Your task to perform on an android device: Open wifi settings Image 0: 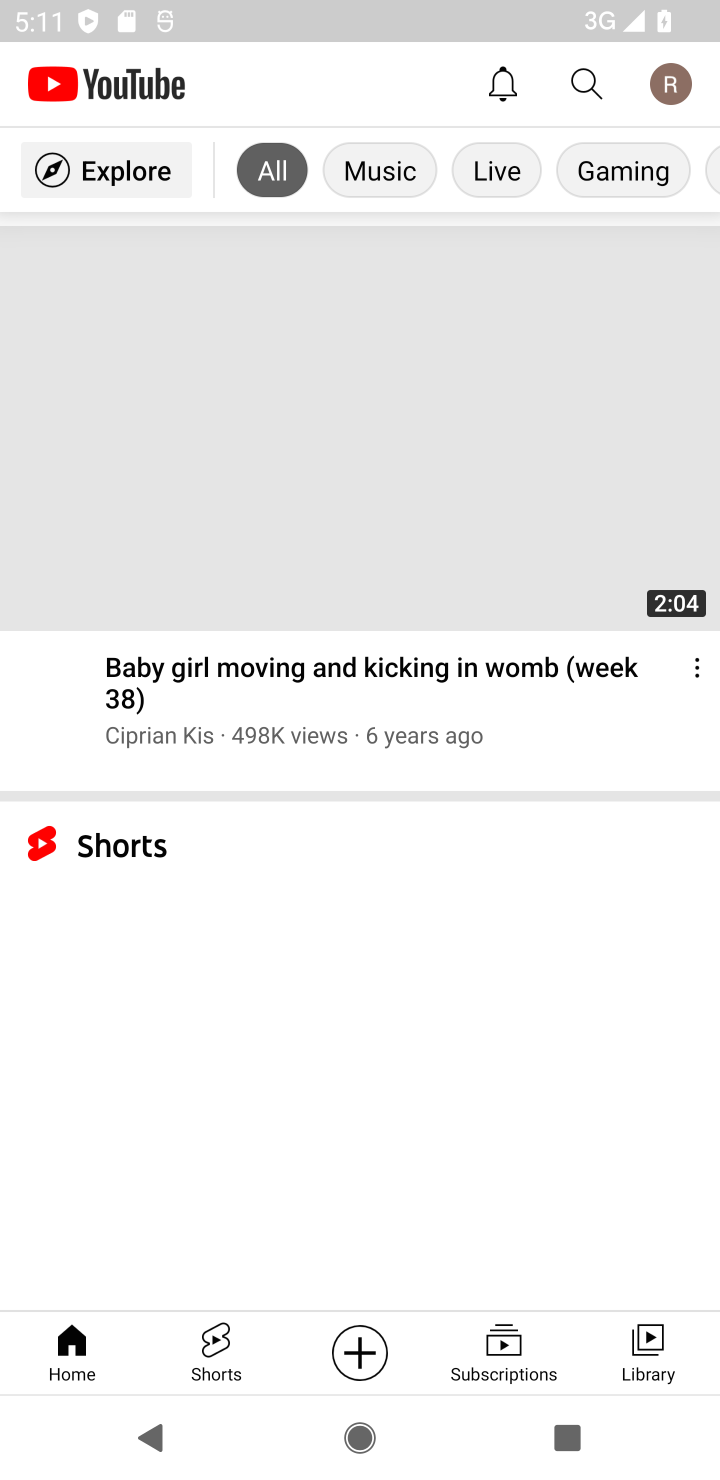
Step 0: press home button
Your task to perform on an android device: Open wifi settings Image 1: 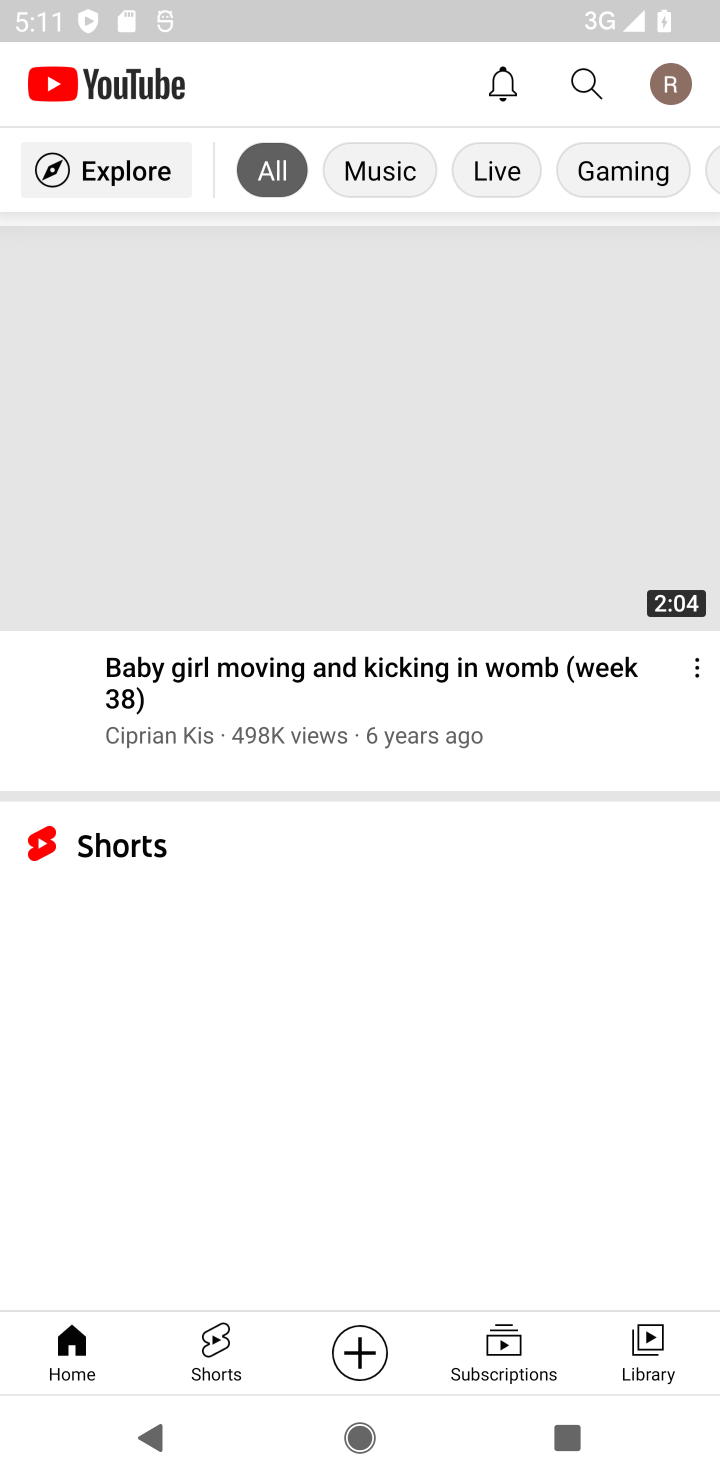
Step 1: press home button
Your task to perform on an android device: Open wifi settings Image 2: 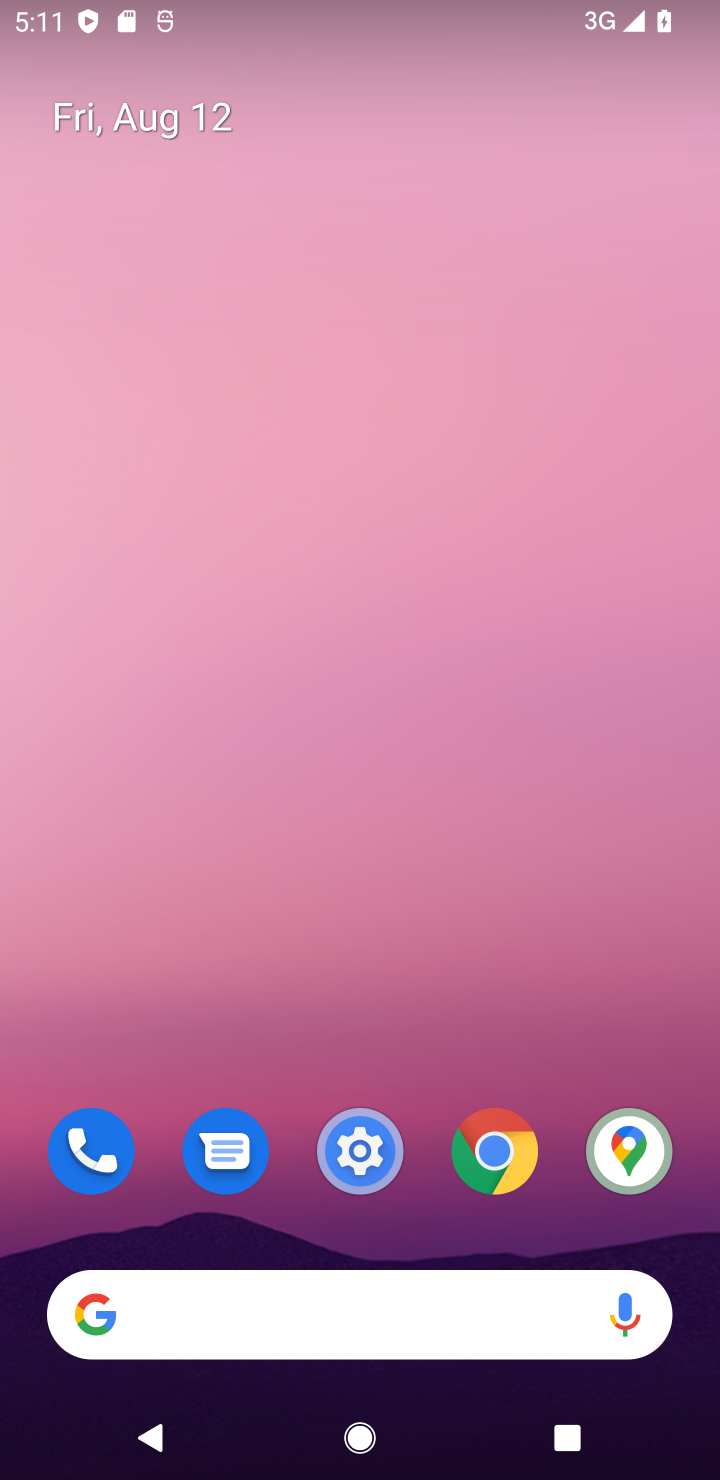
Step 2: drag from (413, 1062) to (466, 61)
Your task to perform on an android device: Open wifi settings Image 3: 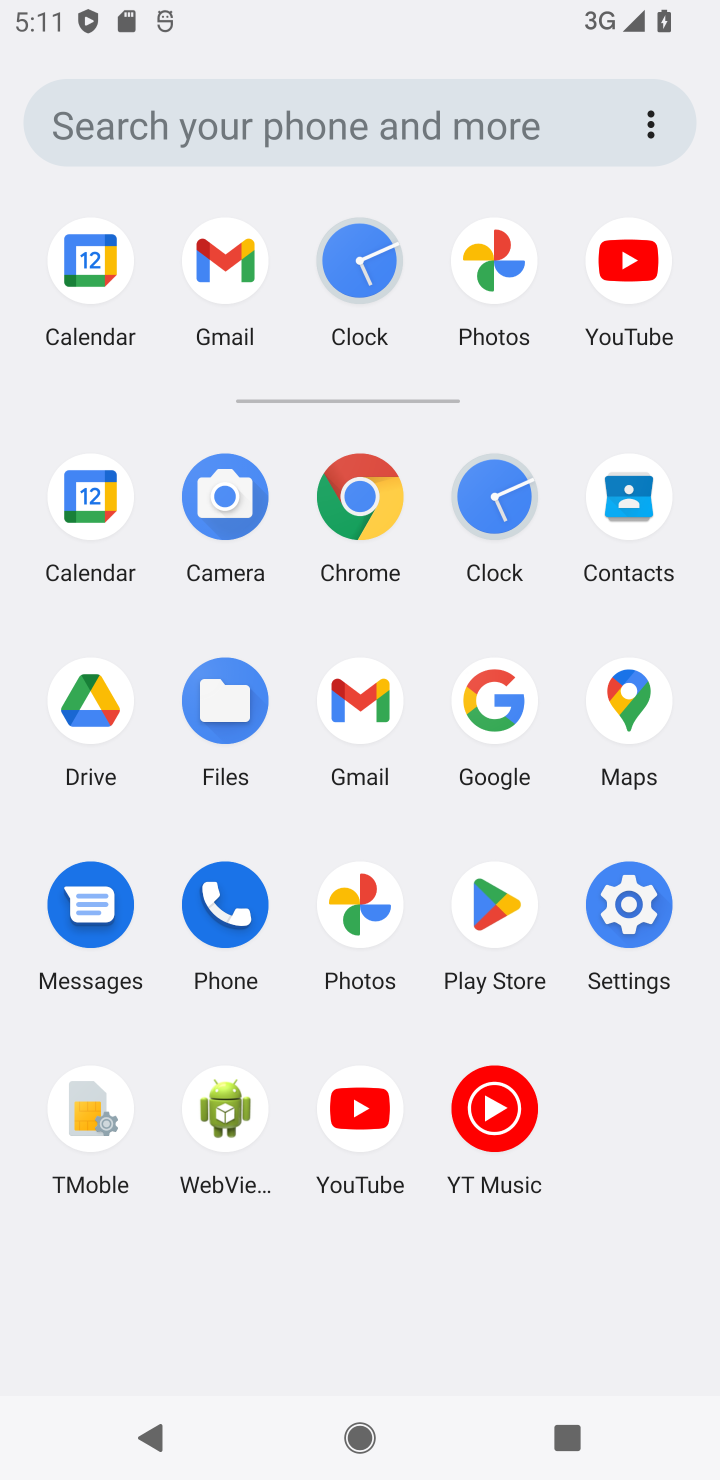
Step 3: click (635, 897)
Your task to perform on an android device: Open wifi settings Image 4: 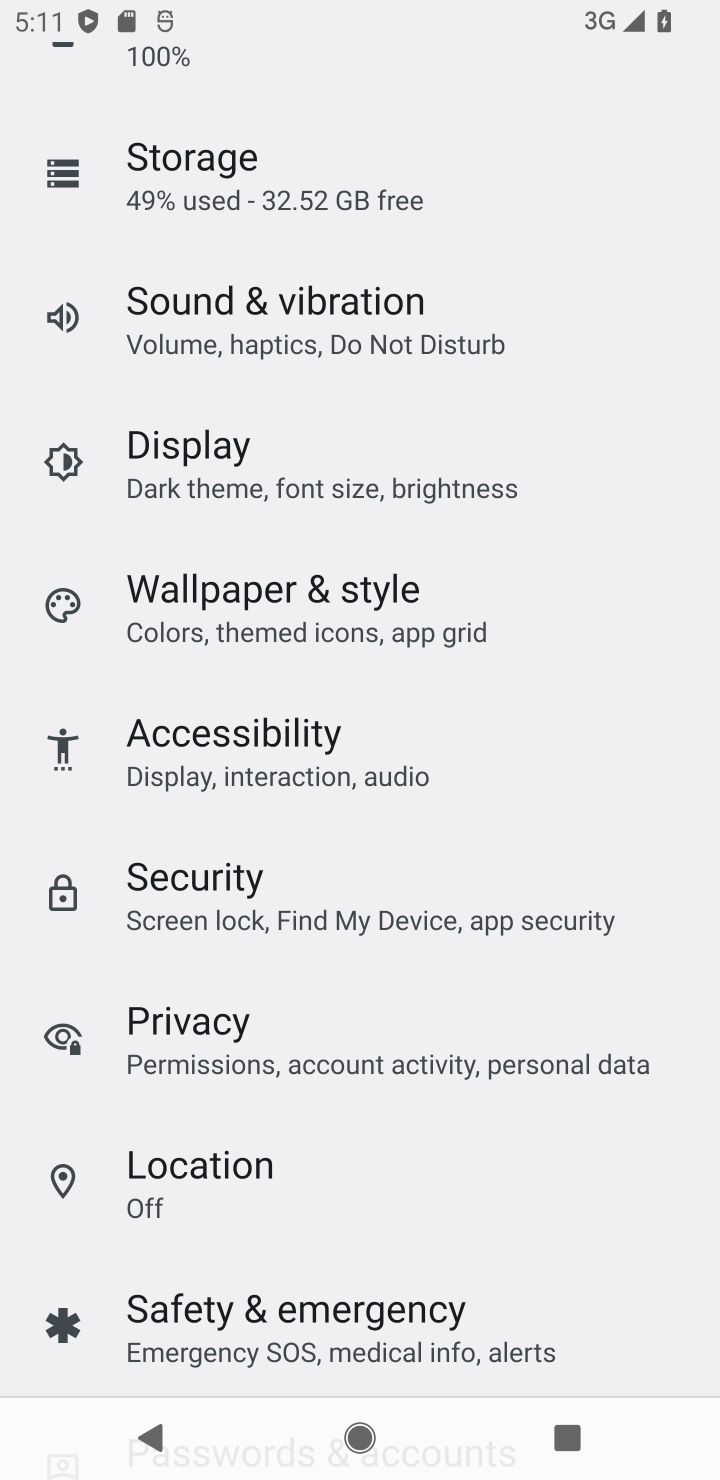
Step 4: drag from (379, 1224) to (512, 535)
Your task to perform on an android device: Open wifi settings Image 5: 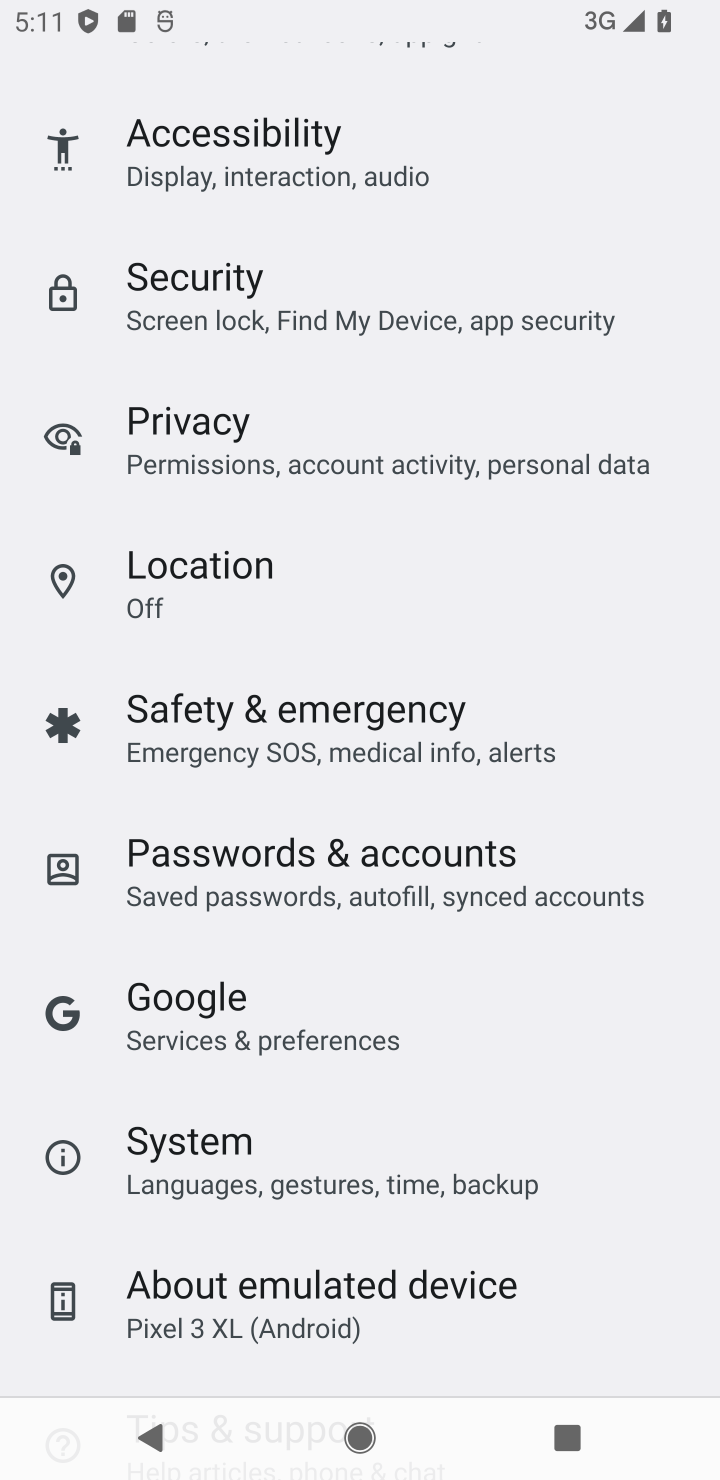
Step 5: drag from (513, 135) to (363, 1253)
Your task to perform on an android device: Open wifi settings Image 6: 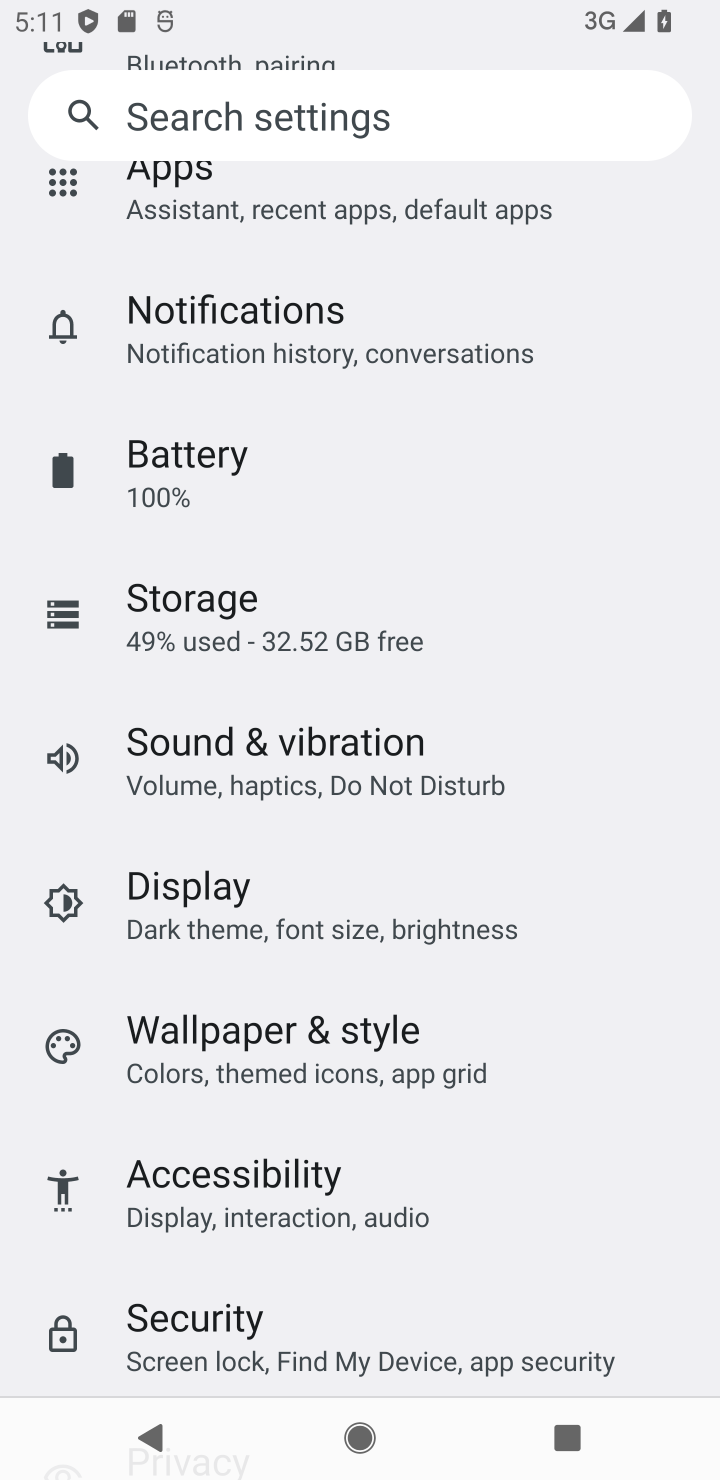
Step 6: drag from (415, 271) to (384, 1038)
Your task to perform on an android device: Open wifi settings Image 7: 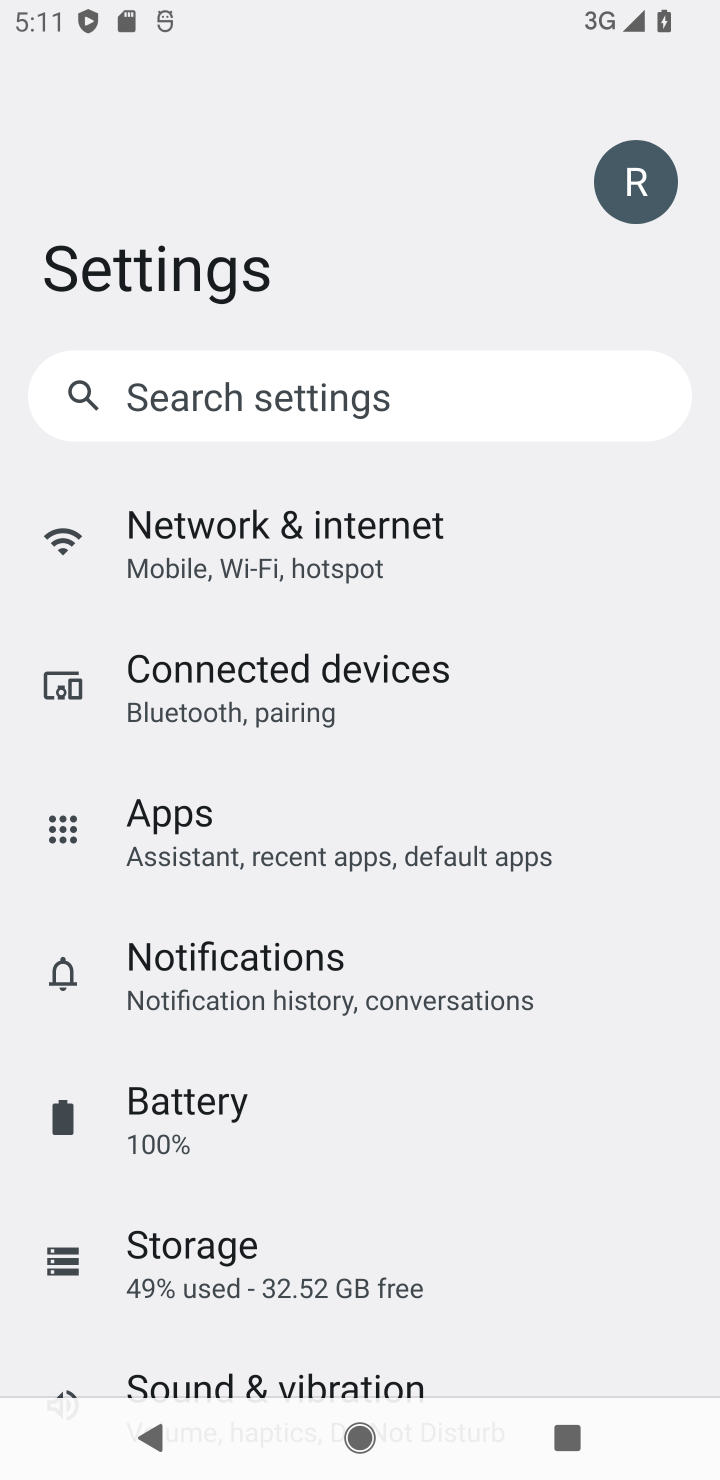
Step 7: click (328, 560)
Your task to perform on an android device: Open wifi settings Image 8: 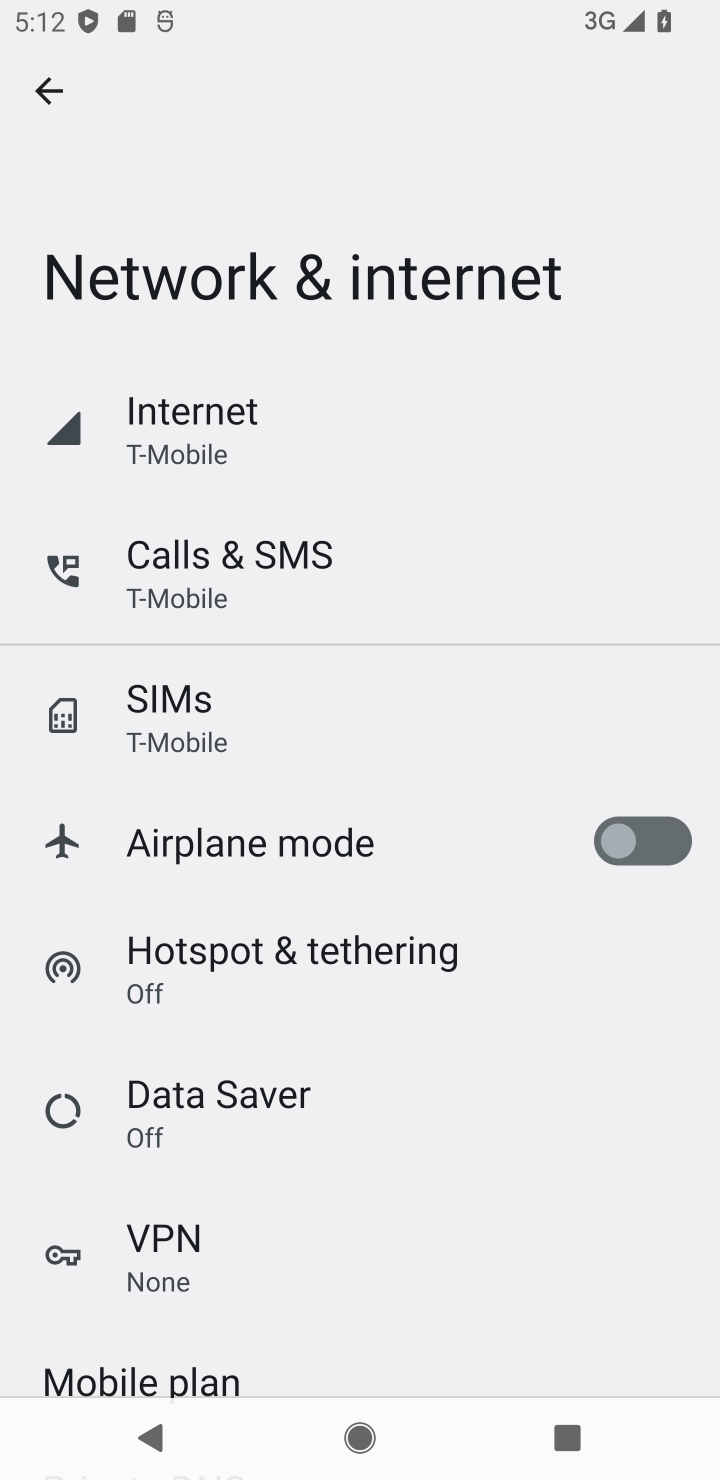
Step 8: click (267, 416)
Your task to perform on an android device: Open wifi settings Image 9: 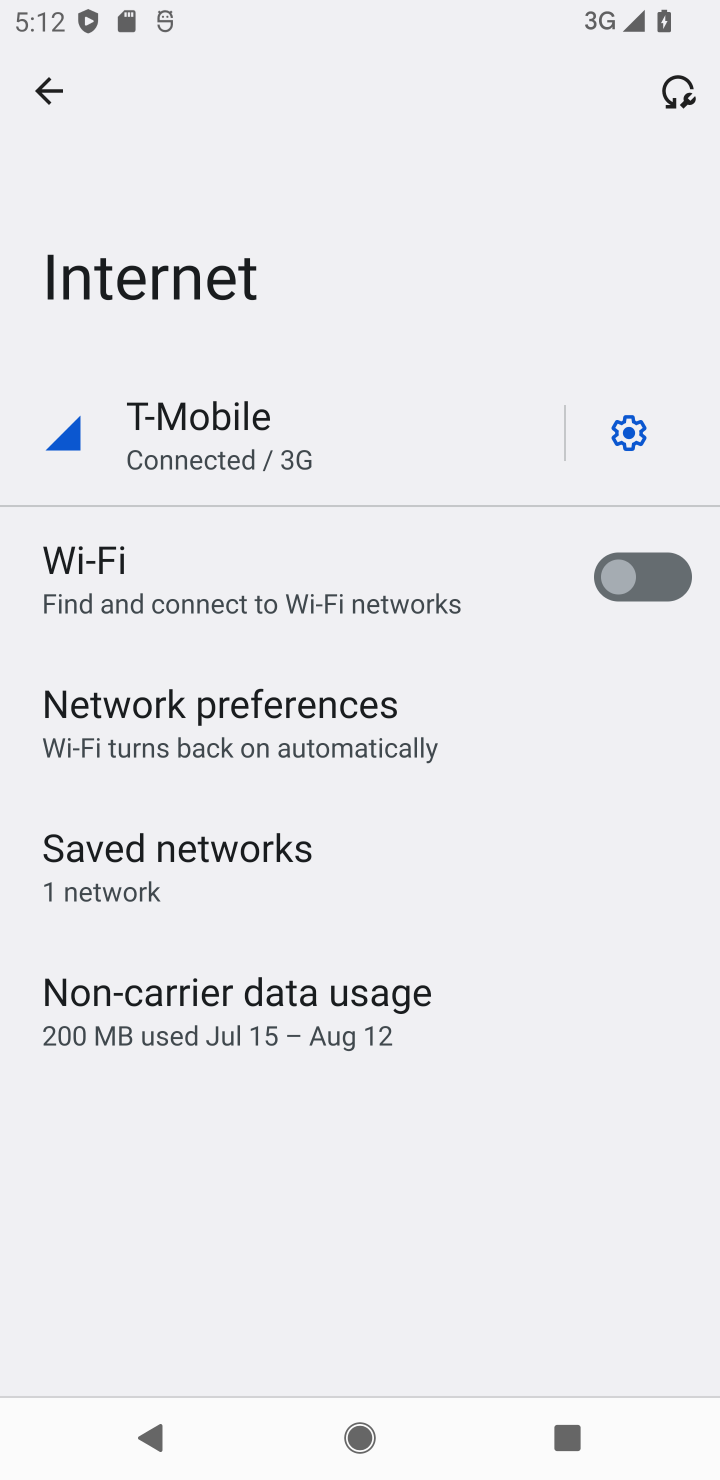
Step 9: click (413, 580)
Your task to perform on an android device: Open wifi settings Image 10: 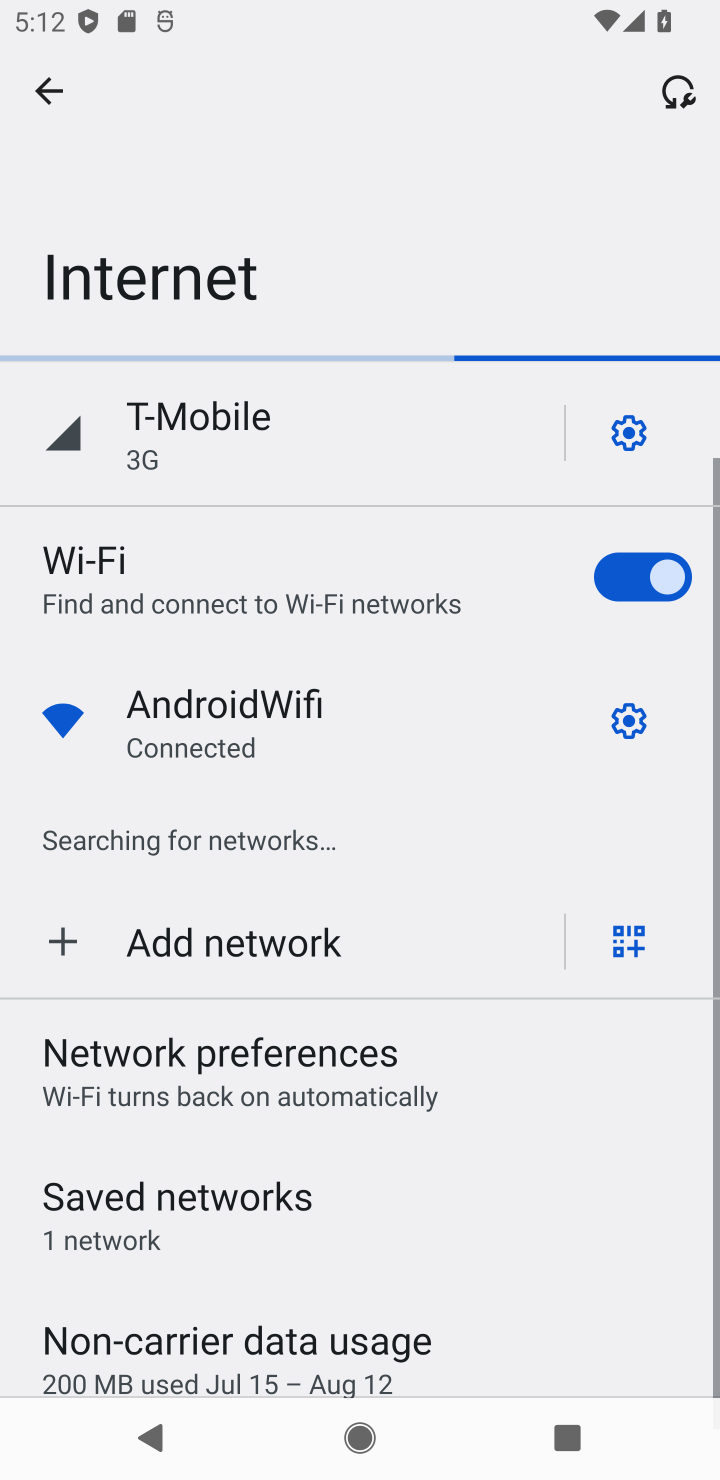
Step 10: click (620, 716)
Your task to perform on an android device: Open wifi settings Image 11: 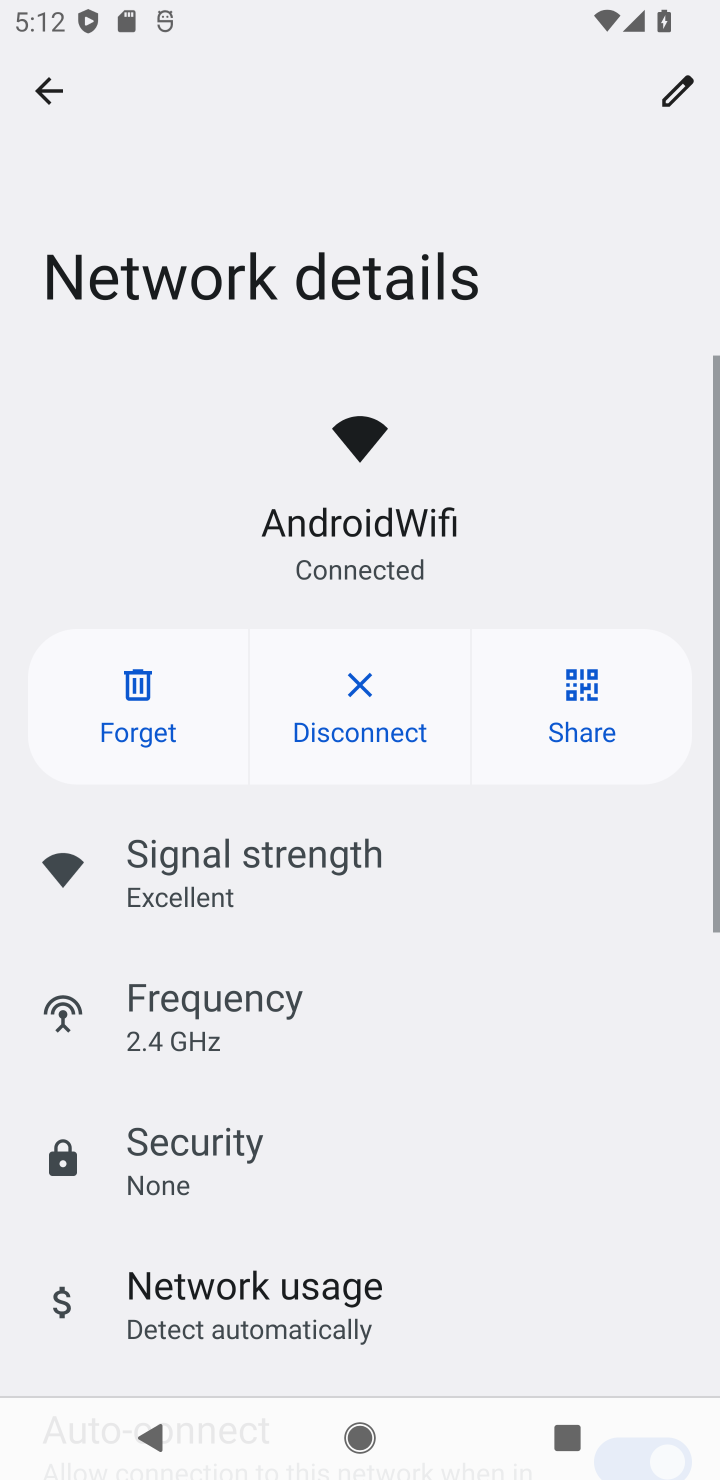
Step 11: task complete